Your task to perform on an android device: Open the calendar app, open the side menu, and click the "Day" option Image 0: 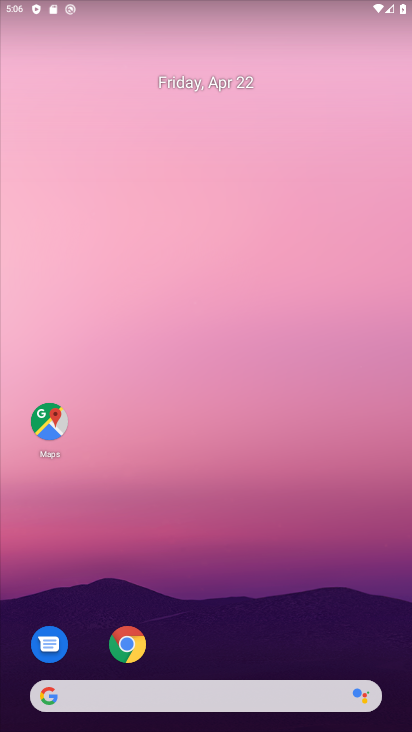
Step 0: click (123, 635)
Your task to perform on an android device: Open the calendar app, open the side menu, and click the "Day" option Image 1: 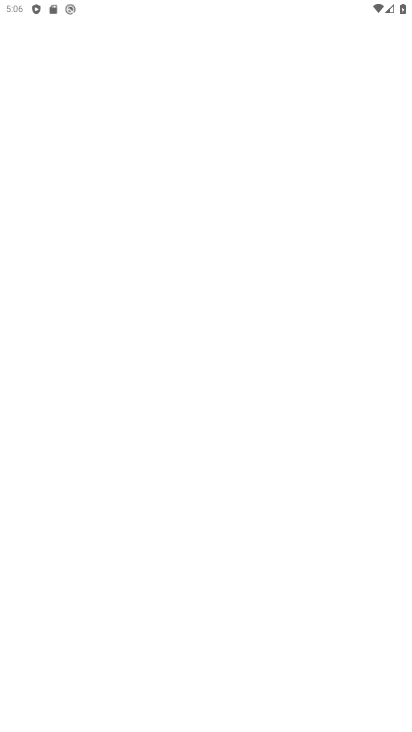
Step 1: press home button
Your task to perform on an android device: Open the calendar app, open the side menu, and click the "Day" option Image 2: 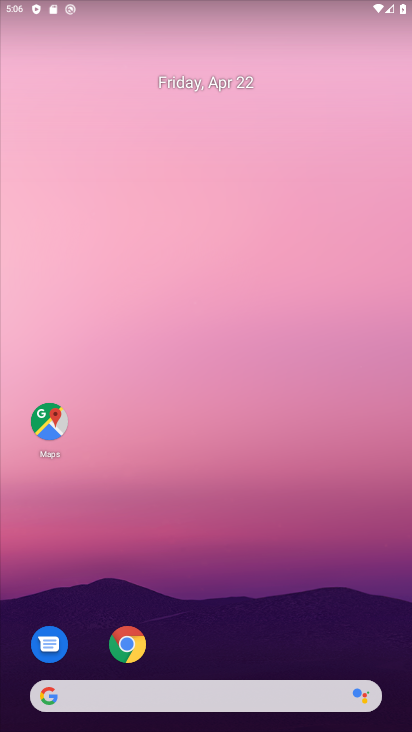
Step 2: drag from (208, 562) to (343, 1)
Your task to perform on an android device: Open the calendar app, open the side menu, and click the "Day" option Image 3: 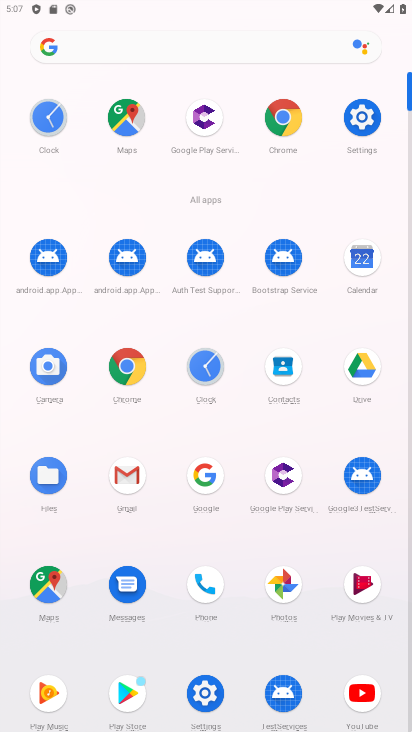
Step 3: click (359, 267)
Your task to perform on an android device: Open the calendar app, open the side menu, and click the "Day" option Image 4: 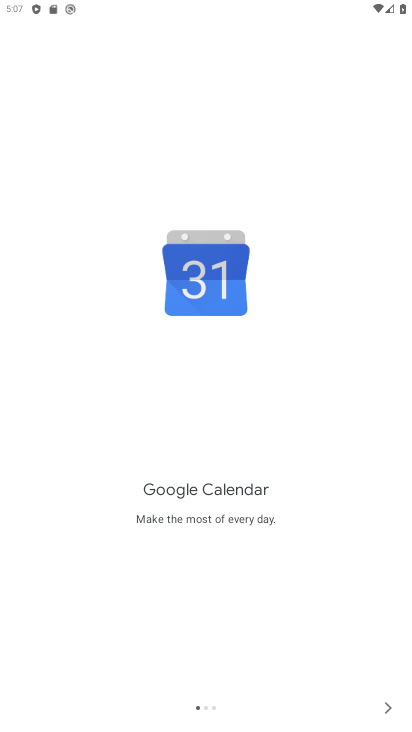
Step 4: click (381, 710)
Your task to perform on an android device: Open the calendar app, open the side menu, and click the "Day" option Image 5: 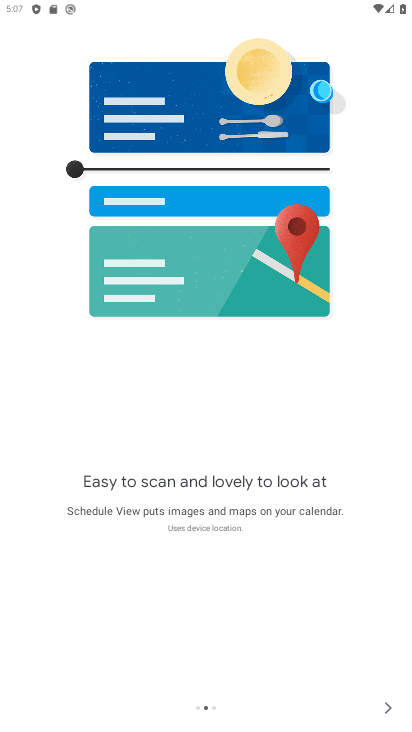
Step 5: click (382, 709)
Your task to perform on an android device: Open the calendar app, open the side menu, and click the "Day" option Image 6: 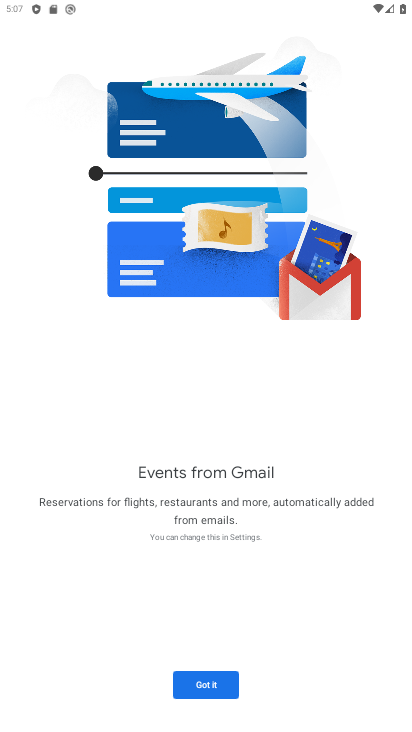
Step 6: click (209, 681)
Your task to perform on an android device: Open the calendar app, open the side menu, and click the "Day" option Image 7: 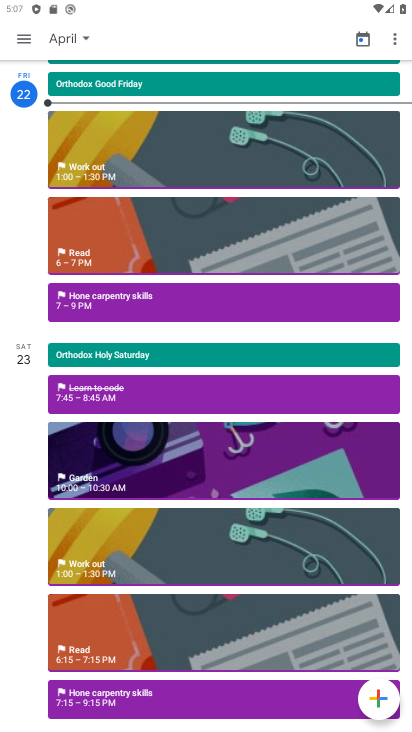
Step 7: click (19, 36)
Your task to perform on an android device: Open the calendar app, open the side menu, and click the "Day" option Image 8: 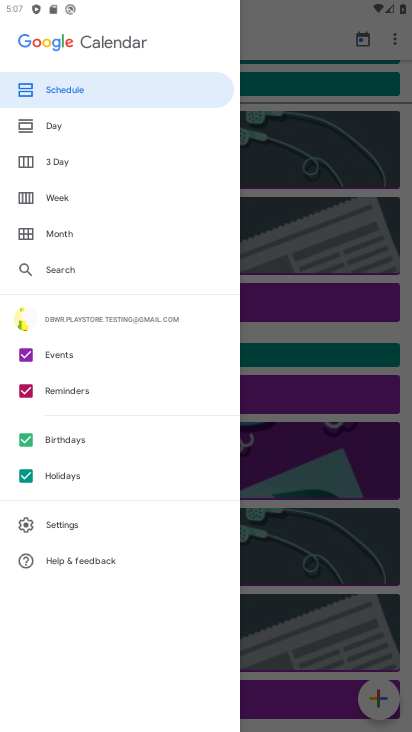
Step 8: click (52, 125)
Your task to perform on an android device: Open the calendar app, open the side menu, and click the "Day" option Image 9: 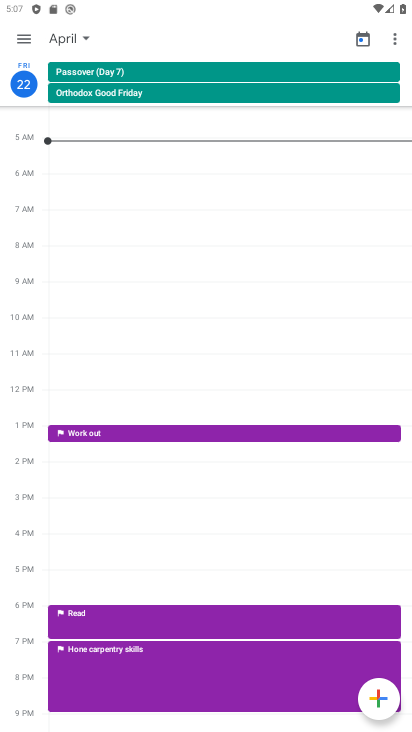
Step 9: task complete